Your task to perform on an android device: Open Amazon Image 0: 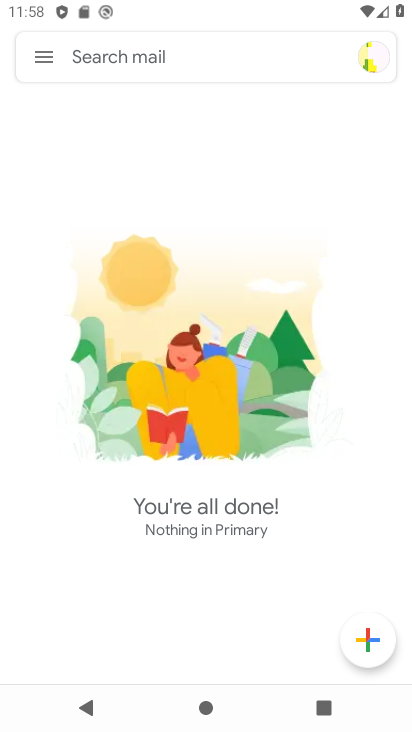
Step 0: press home button
Your task to perform on an android device: Open Amazon Image 1: 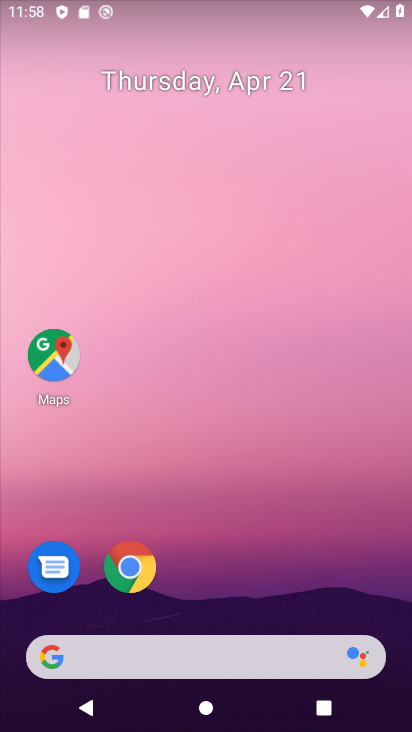
Step 1: click (145, 568)
Your task to perform on an android device: Open Amazon Image 2: 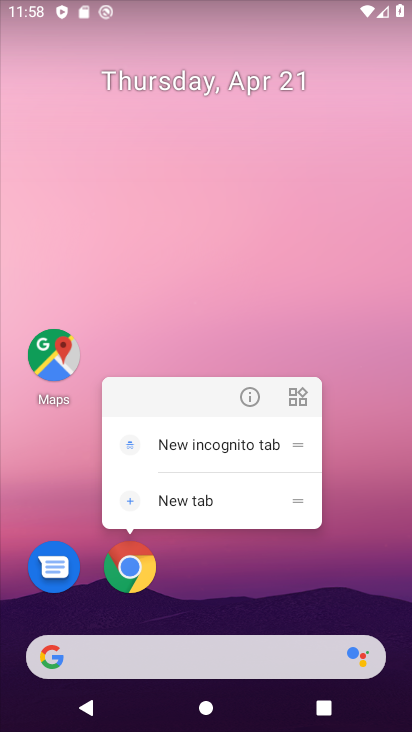
Step 2: click (133, 571)
Your task to perform on an android device: Open Amazon Image 3: 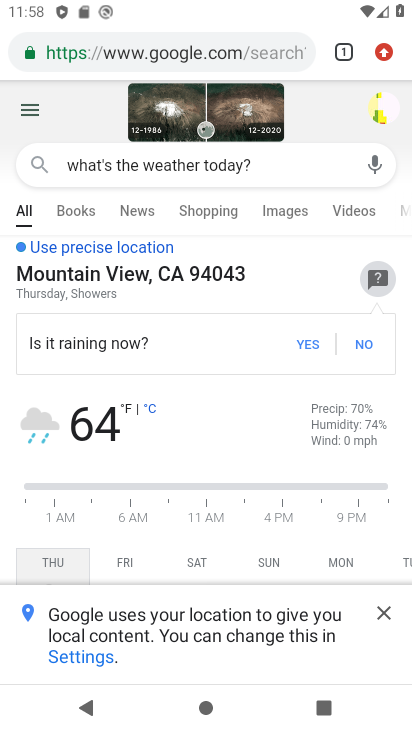
Step 3: click (228, 45)
Your task to perform on an android device: Open Amazon Image 4: 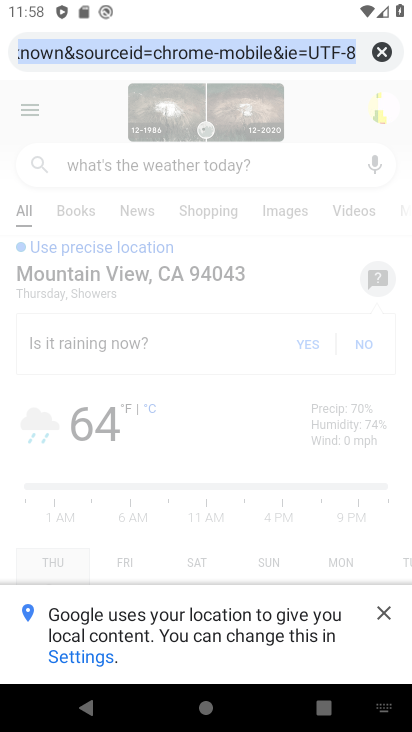
Step 4: type "Amazon"
Your task to perform on an android device: Open Amazon Image 5: 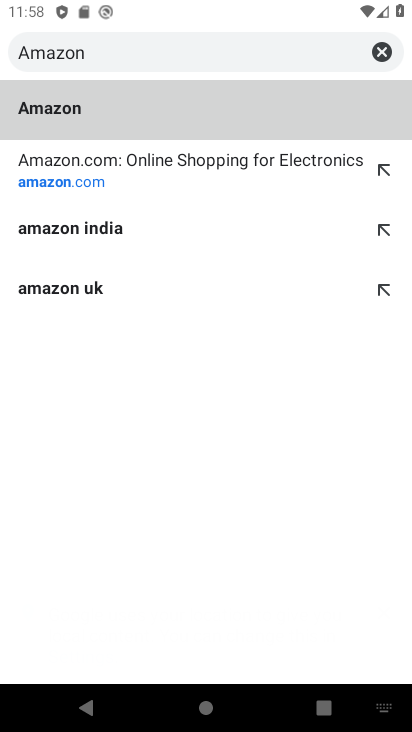
Step 5: click (48, 177)
Your task to perform on an android device: Open Amazon Image 6: 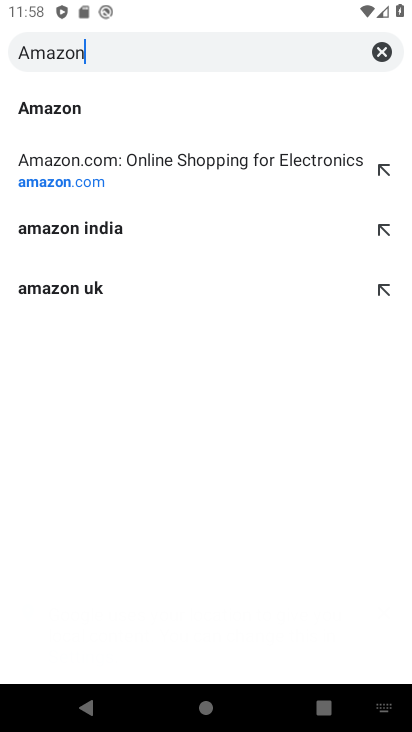
Step 6: click (77, 181)
Your task to perform on an android device: Open Amazon Image 7: 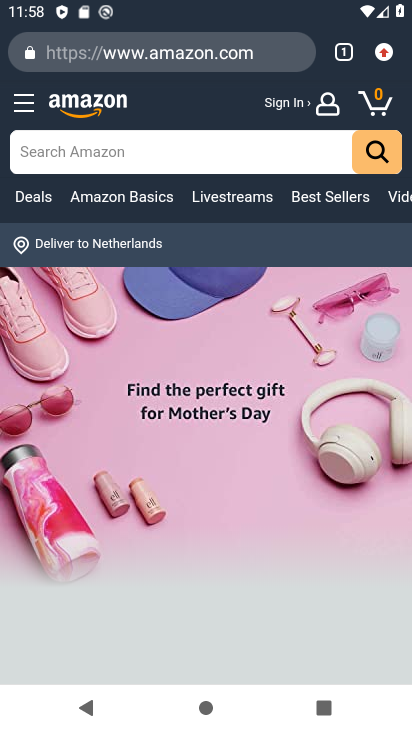
Step 7: task complete